Your task to perform on an android device: Is it going to rain today? Image 0: 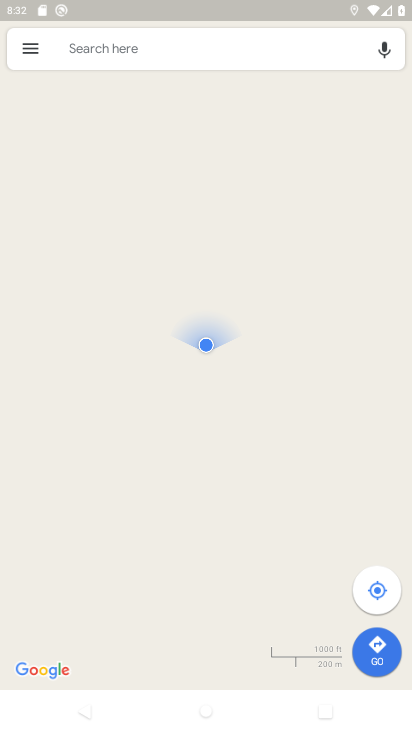
Step 0: press home button
Your task to perform on an android device: Is it going to rain today? Image 1: 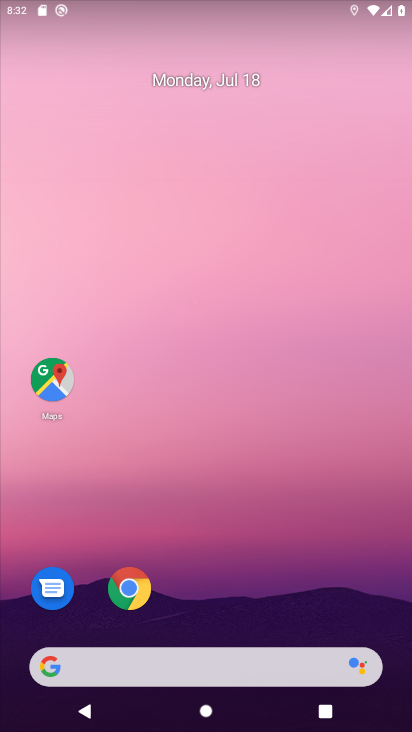
Step 1: drag from (211, 646) to (284, 130)
Your task to perform on an android device: Is it going to rain today? Image 2: 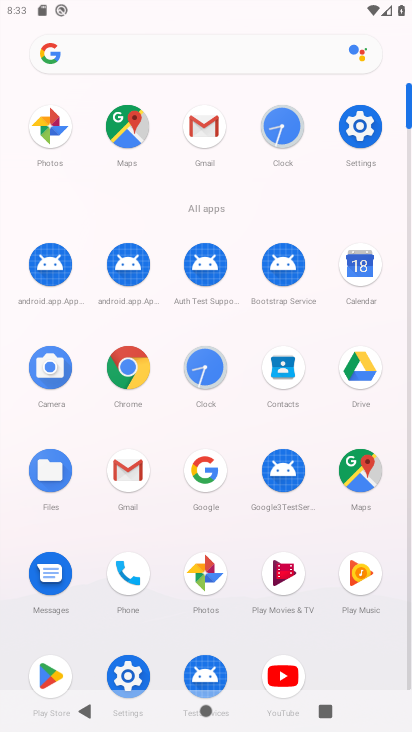
Step 2: click (134, 379)
Your task to perform on an android device: Is it going to rain today? Image 3: 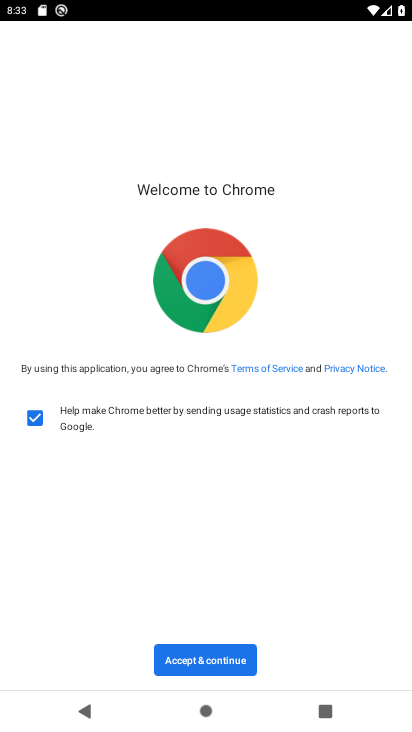
Step 3: click (217, 663)
Your task to perform on an android device: Is it going to rain today? Image 4: 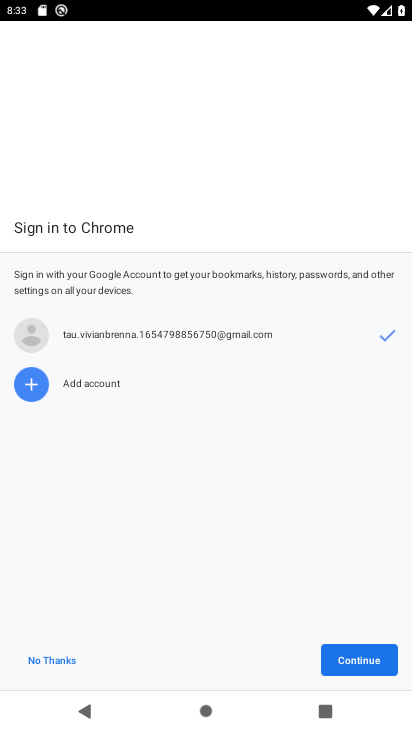
Step 4: click (384, 662)
Your task to perform on an android device: Is it going to rain today? Image 5: 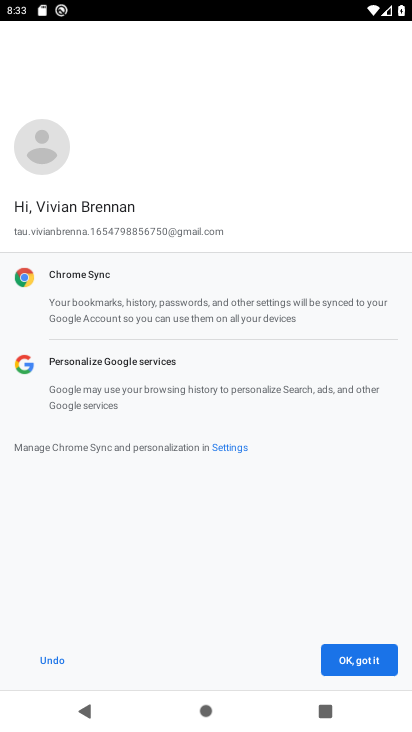
Step 5: click (384, 662)
Your task to perform on an android device: Is it going to rain today? Image 6: 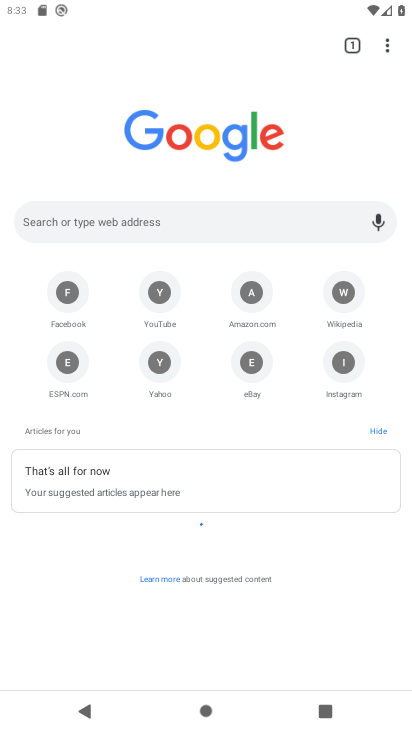
Step 6: click (201, 225)
Your task to perform on an android device: Is it going to rain today? Image 7: 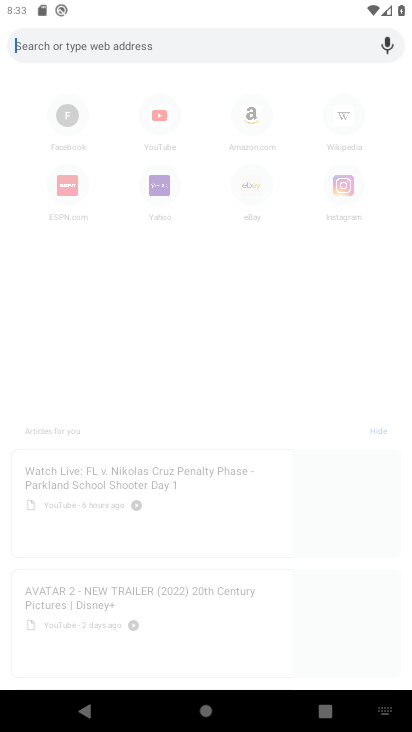
Step 7: type "Is it going to rain today?"
Your task to perform on an android device: Is it going to rain today? Image 8: 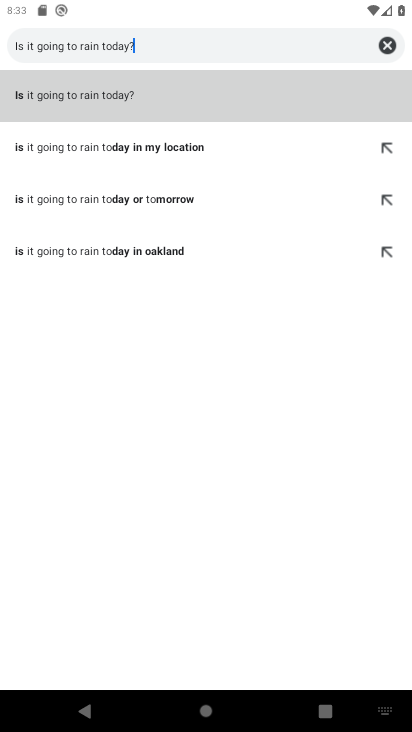
Step 8: type ""
Your task to perform on an android device: Is it going to rain today? Image 9: 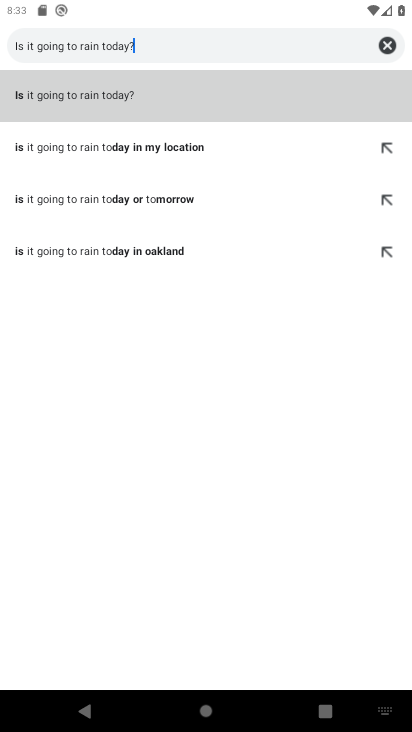
Step 9: click (186, 95)
Your task to perform on an android device: Is it going to rain today? Image 10: 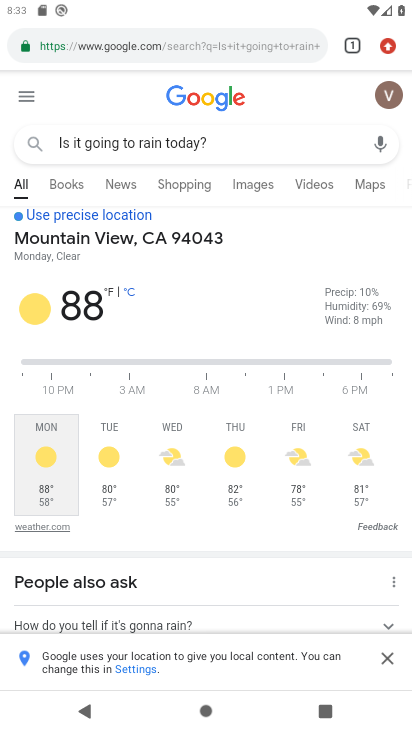
Step 10: task complete